Your task to perform on an android device: turn on improve location accuracy Image 0: 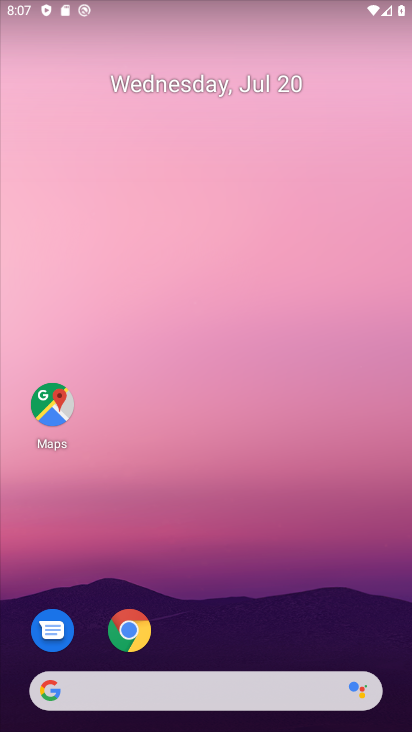
Step 0: drag from (388, 676) to (345, 194)
Your task to perform on an android device: turn on improve location accuracy Image 1: 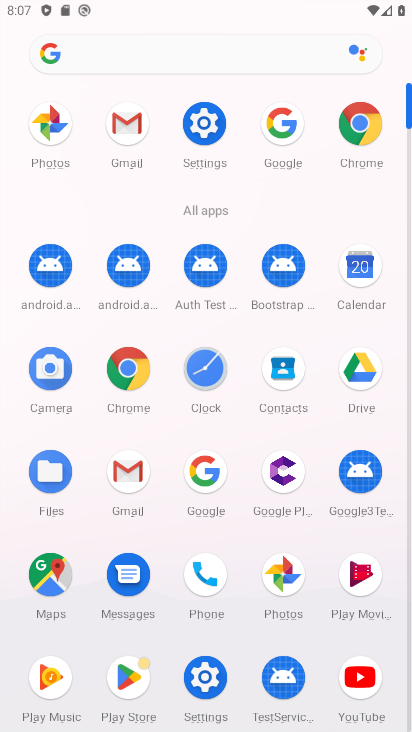
Step 1: click (206, 667)
Your task to perform on an android device: turn on improve location accuracy Image 2: 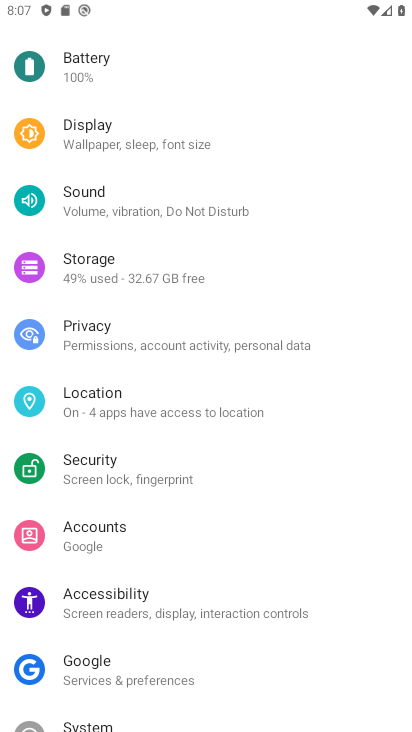
Step 2: click (101, 394)
Your task to perform on an android device: turn on improve location accuracy Image 3: 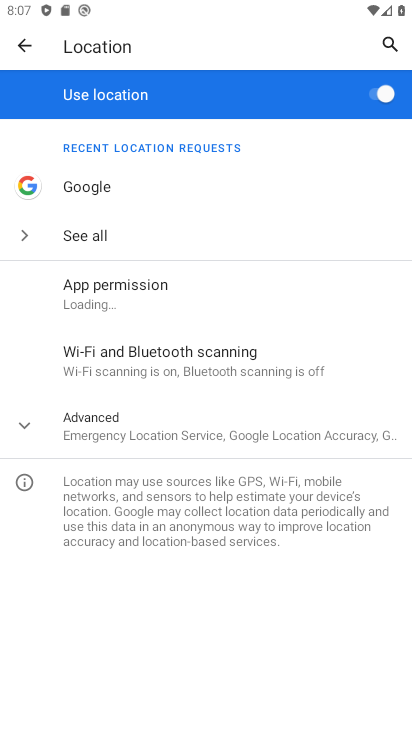
Step 3: click (18, 426)
Your task to perform on an android device: turn on improve location accuracy Image 4: 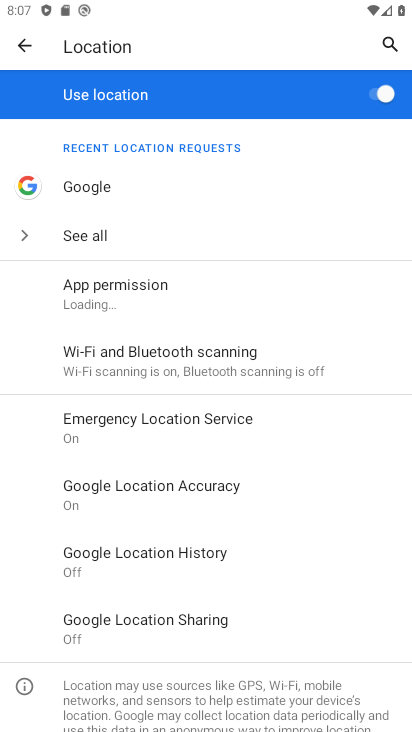
Step 4: click (149, 484)
Your task to perform on an android device: turn on improve location accuracy Image 5: 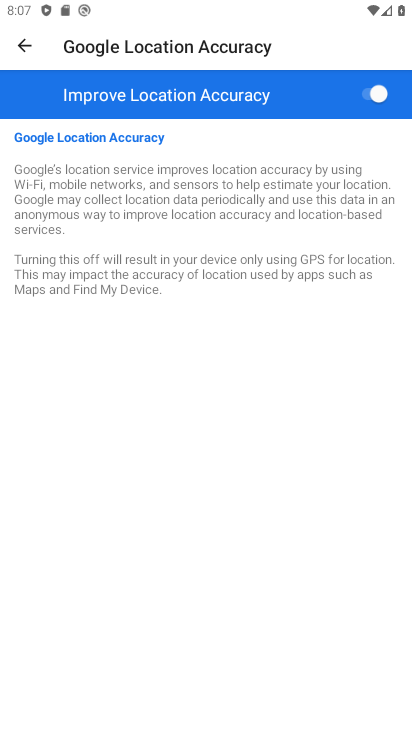
Step 5: task complete